Your task to perform on an android device: turn off improve location accuracy Image 0: 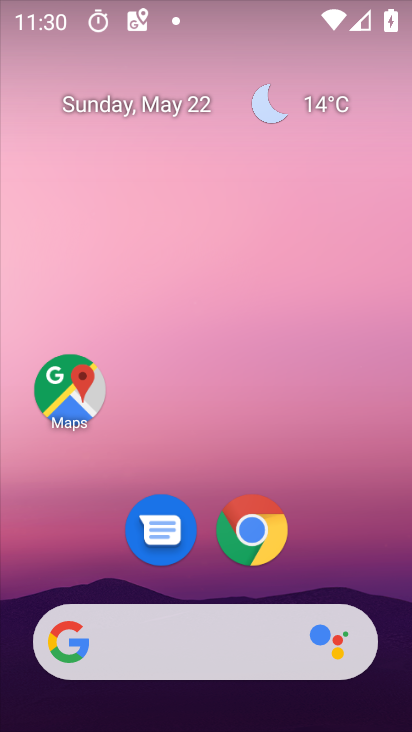
Step 0: drag from (389, 658) to (378, 248)
Your task to perform on an android device: turn off improve location accuracy Image 1: 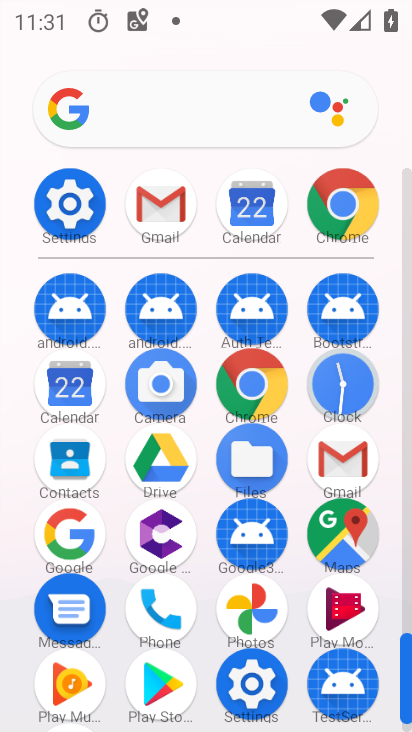
Step 1: click (60, 209)
Your task to perform on an android device: turn off improve location accuracy Image 2: 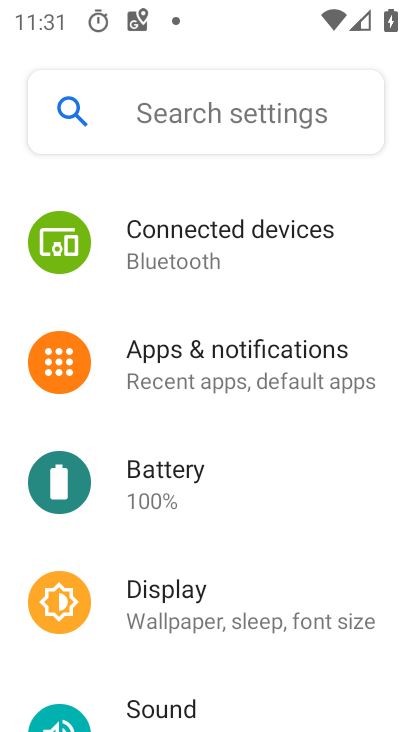
Step 2: drag from (347, 644) to (359, 327)
Your task to perform on an android device: turn off improve location accuracy Image 3: 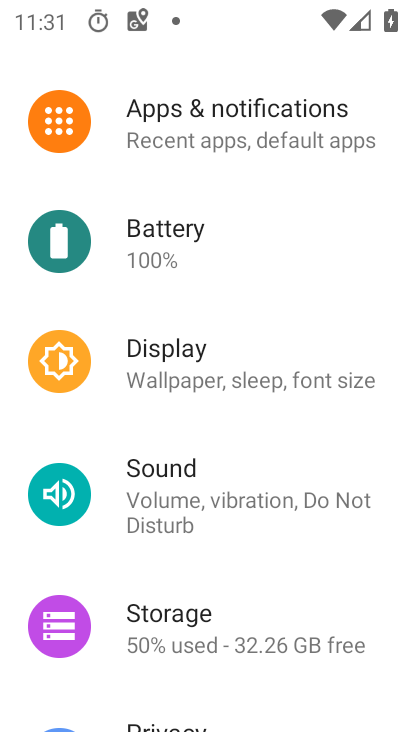
Step 3: drag from (295, 668) to (313, 415)
Your task to perform on an android device: turn off improve location accuracy Image 4: 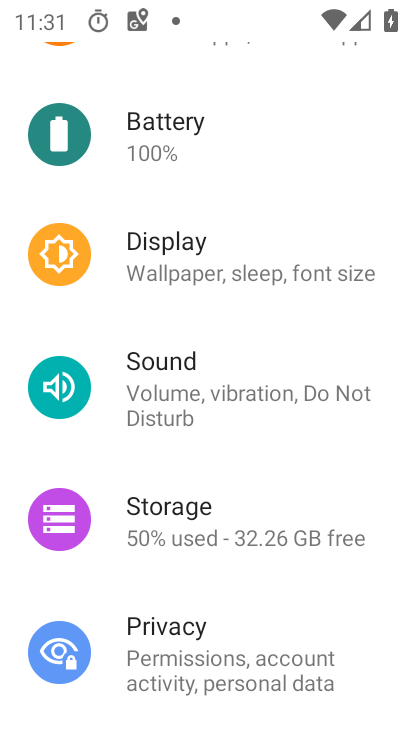
Step 4: drag from (345, 712) to (377, 333)
Your task to perform on an android device: turn off improve location accuracy Image 5: 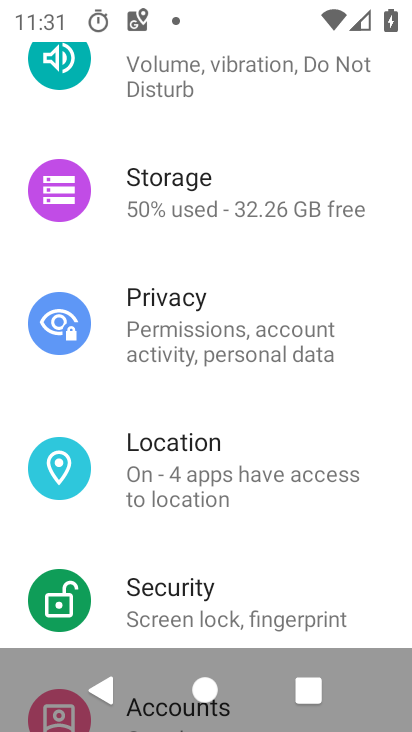
Step 5: click (175, 584)
Your task to perform on an android device: turn off improve location accuracy Image 6: 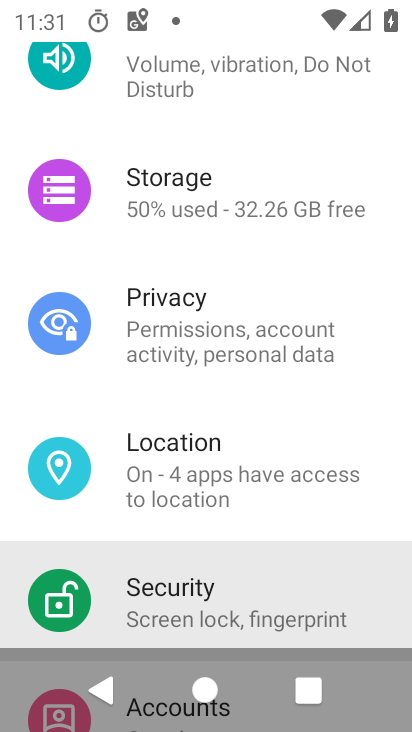
Step 6: click (185, 492)
Your task to perform on an android device: turn off improve location accuracy Image 7: 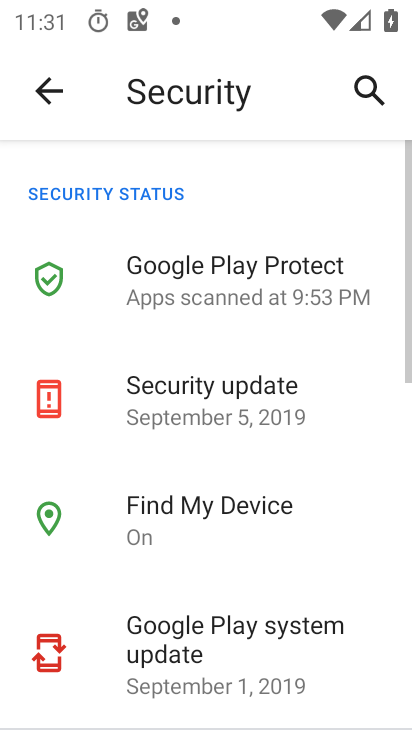
Step 7: click (52, 86)
Your task to perform on an android device: turn off improve location accuracy Image 8: 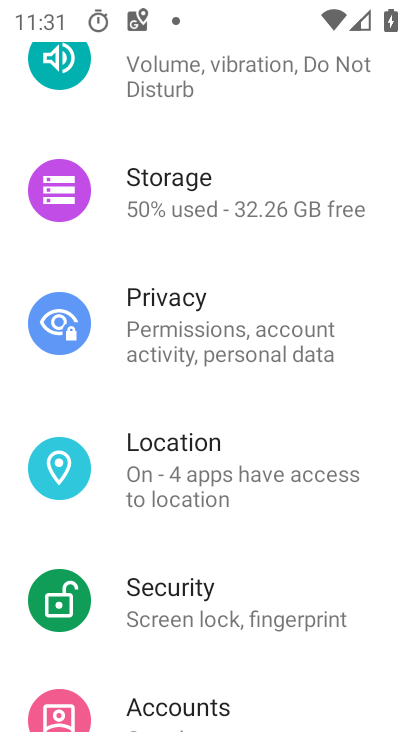
Step 8: click (154, 471)
Your task to perform on an android device: turn off improve location accuracy Image 9: 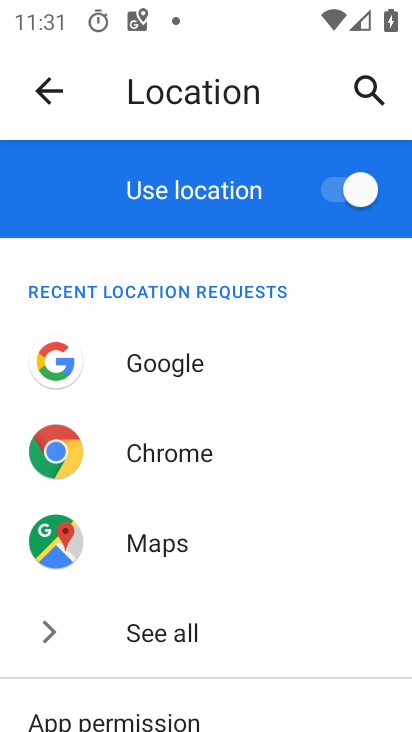
Step 9: drag from (294, 617) to (286, 302)
Your task to perform on an android device: turn off improve location accuracy Image 10: 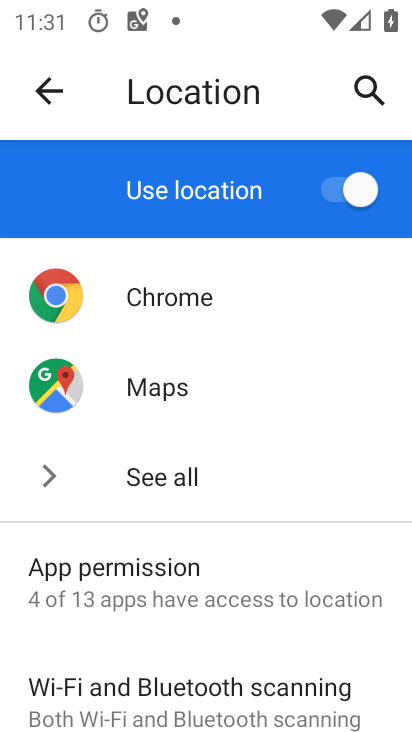
Step 10: drag from (320, 702) to (317, 276)
Your task to perform on an android device: turn off improve location accuracy Image 11: 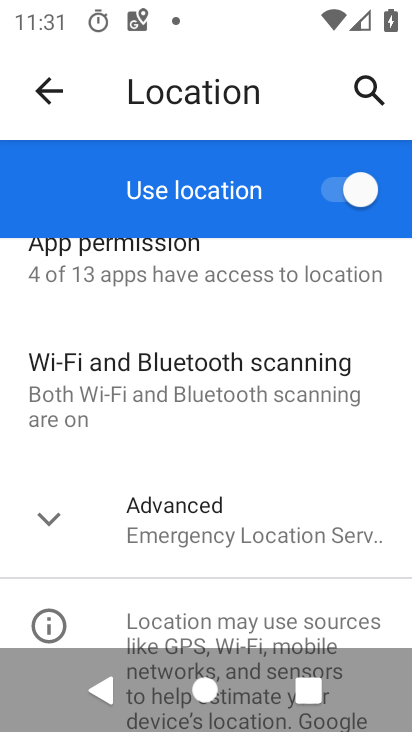
Step 11: drag from (253, 599) to (252, 227)
Your task to perform on an android device: turn off improve location accuracy Image 12: 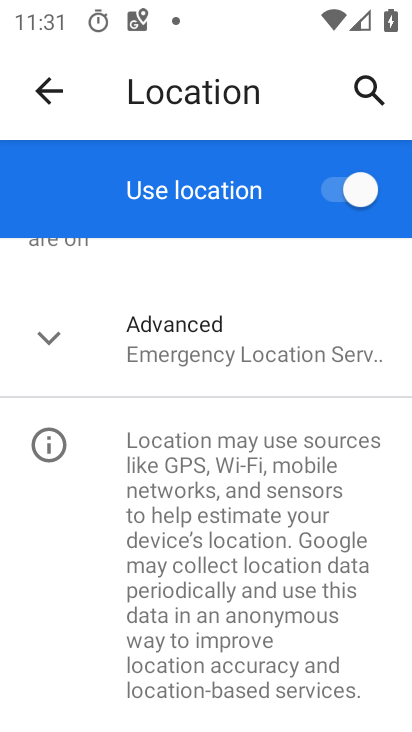
Step 12: click (39, 371)
Your task to perform on an android device: turn off improve location accuracy Image 13: 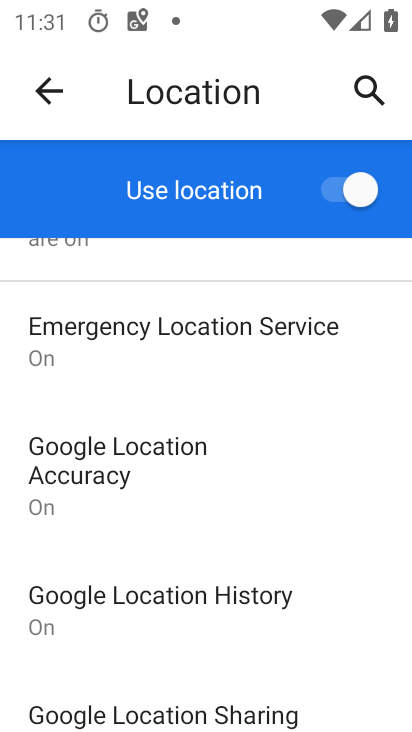
Step 13: drag from (174, 671) to (225, 242)
Your task to perform on an android device: turn off improve location accuracy Image 14: 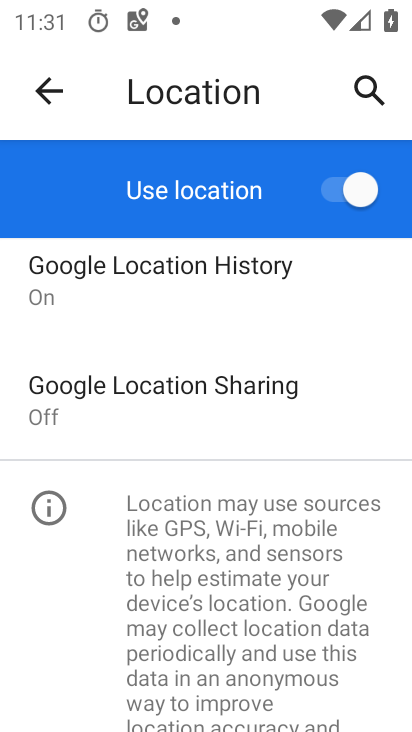
Step 14: drag from (159, 298) to (155, 505)
Your task to perform on an android device: turn off improve location accuracy Image 15: 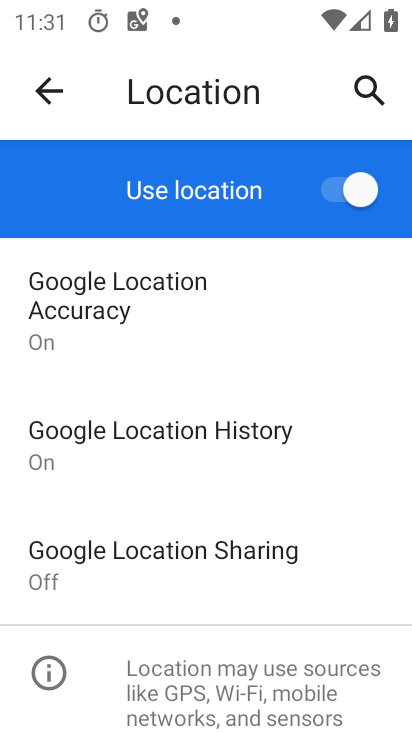
Step 15: drag from (180, 350) to (178, 552)
Your task to perform on an android device: turn off improve location accuracy Image 16: 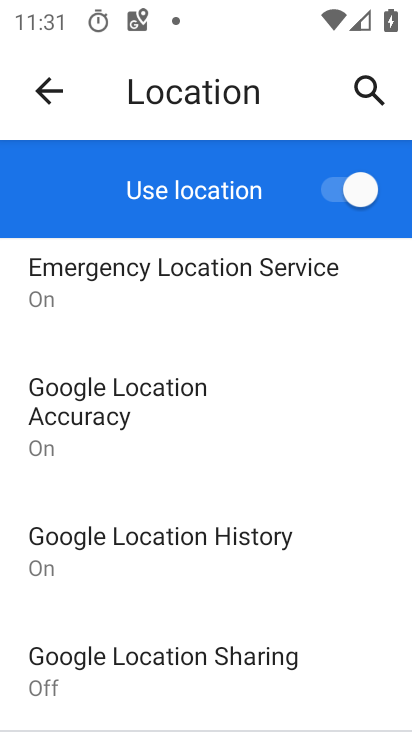
Step 16: click (52, 414)
Your task to perform on an android device: turn off improve location accuracy Image 17: 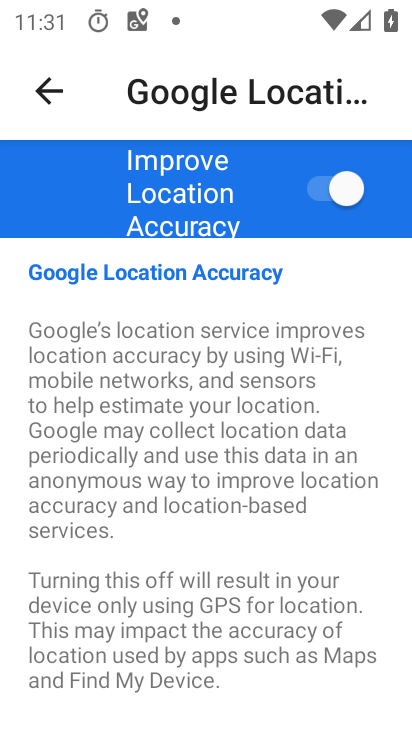
Step 17: click (311, 185)
Your task to perform on an android device: turn off improve location accuracy Image 18: 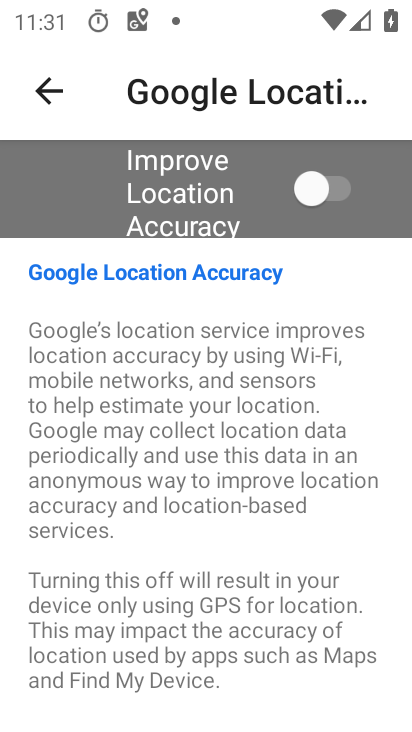
Step 18: task complete